Your task to perform on an android device: change keyboard looks Image 0: 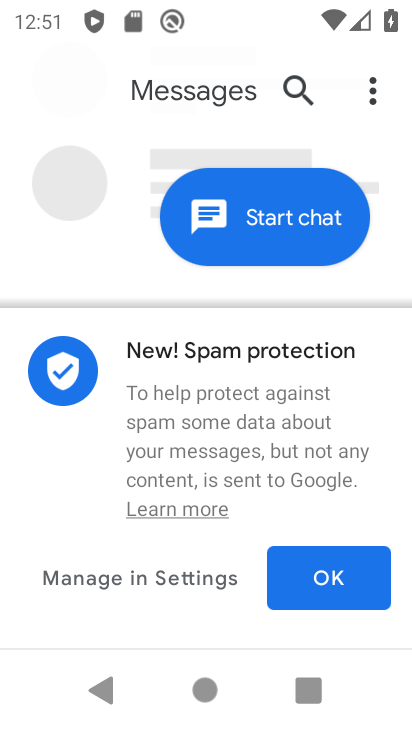
Step 0: press home button
Your task to perform on an android device: change keyboard looks Image 1: 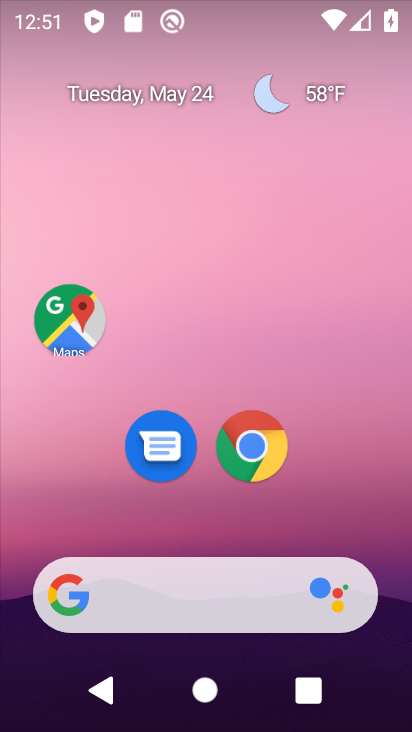
Step 1: drag from (230, 525) to (223, 133)
Your task to perform on an android device: change keyboard looks Image 2: 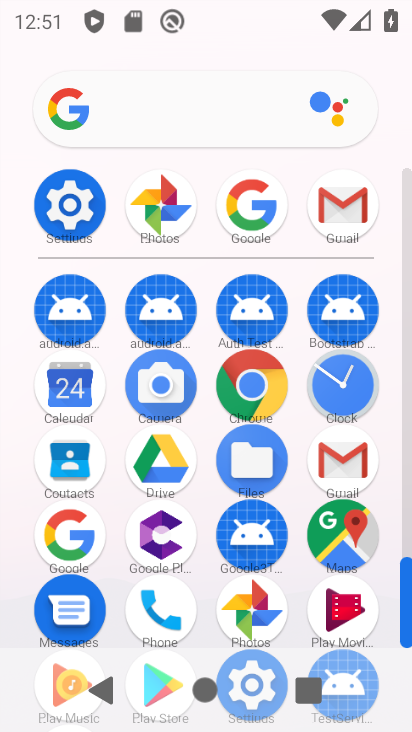
Step 2: click (66, 209)
Your task to perform on an android device: change keyboard looks Image 3: 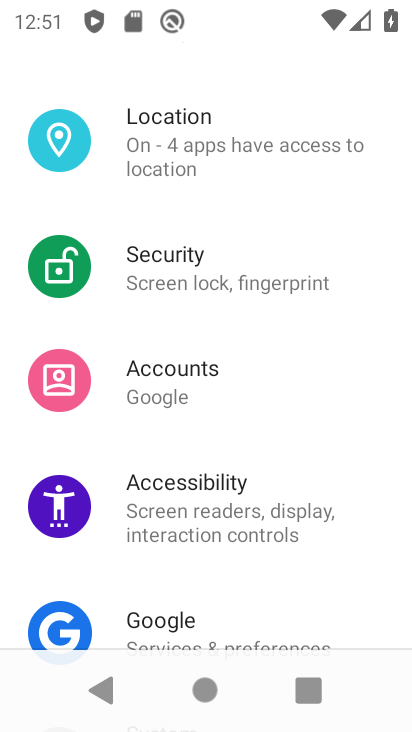
Step 3: drag from (208, 507) to (252, 150)
Your task to perform on an android device: change keyboard looks Image 4: 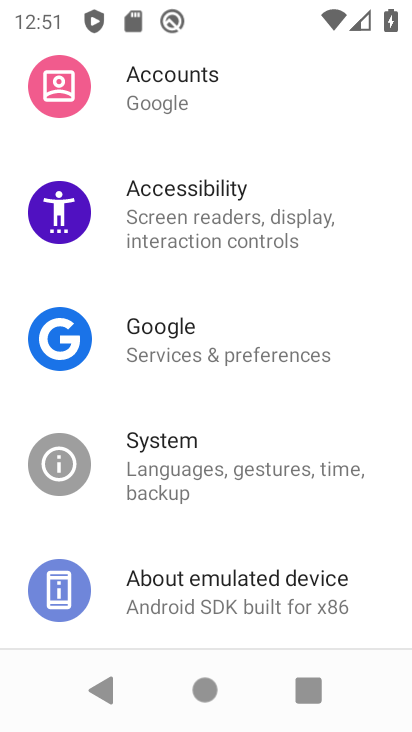
Step 4: drag from (192, 499) to (223, 171)
Your task to perform on an android device: change keyboard looks Image 5: 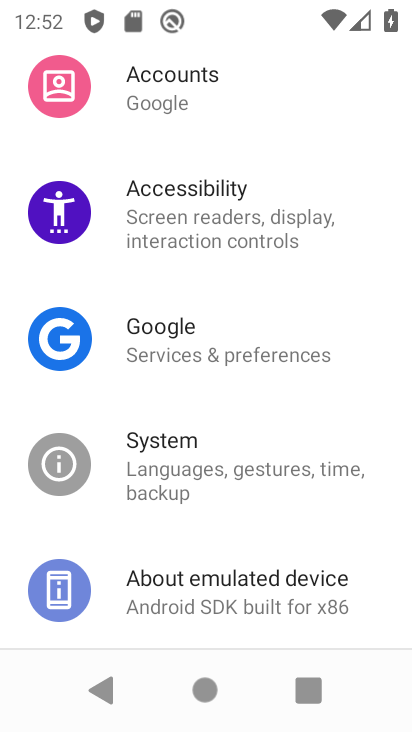
Step 5: click (238, 480)
Your task to perform on an android device: change keyboard looks Image 6: 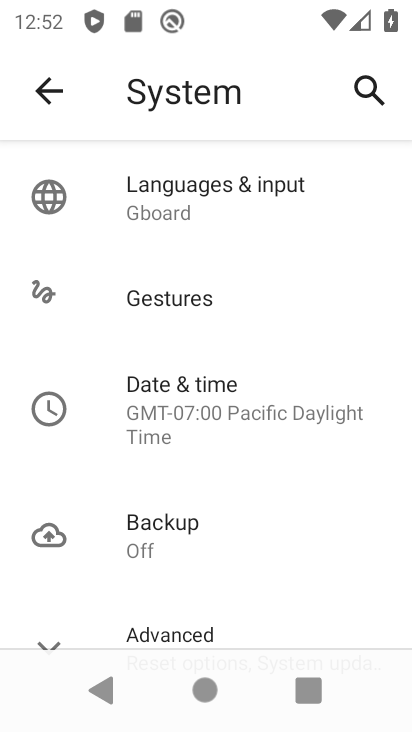
Step 6: click (211, 206)
Your task to perform on an android device: change keyboard looks Image 7: 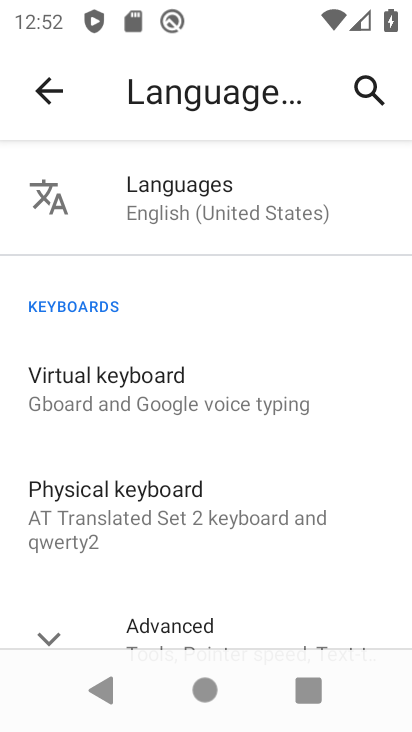
Step 7: click (181, 400)
Your task to perform on an android device: change keyboard looks Image 8: 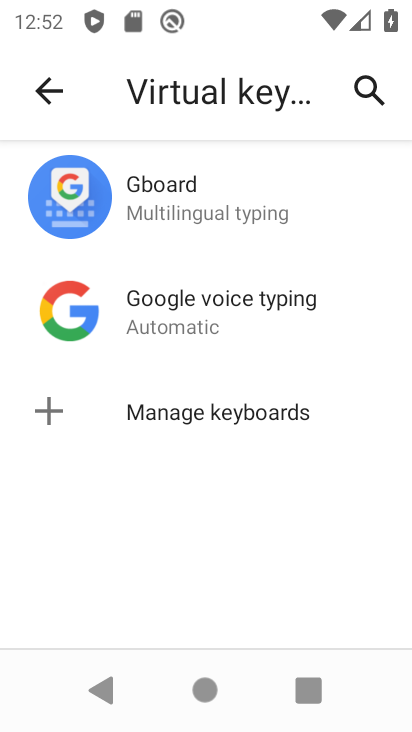
Step 8: click (211, 205)
Your task to perform on an android device: change keyboard looks Image 9: 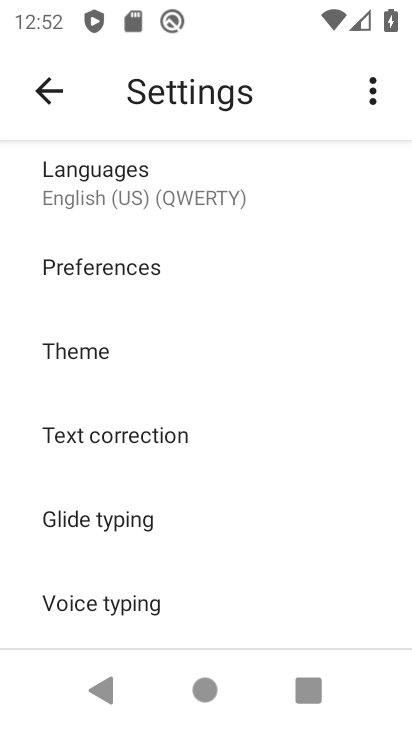
Step 9: click (121, 353)
Your task to perform on an android device: change keyboard looks Image 10: 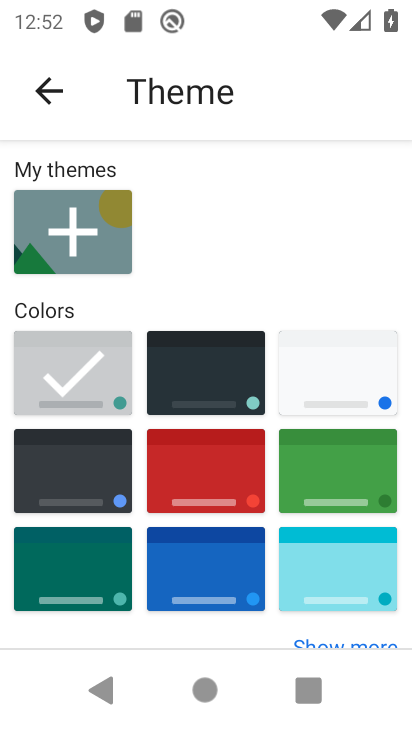
Step 10: click (343, 362)
Your task to perform on an android device: change keyboard looks Image 11: 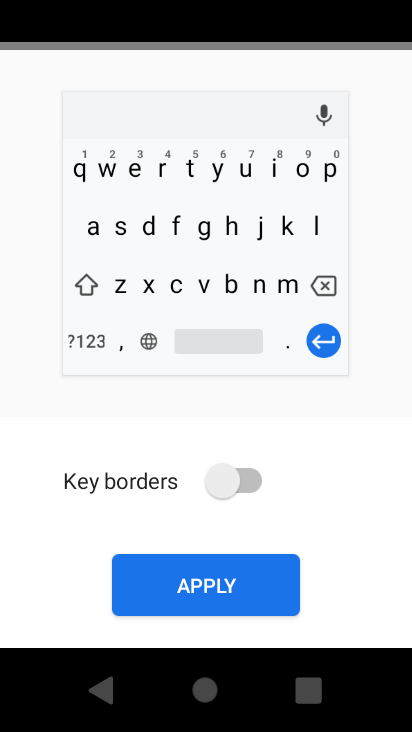
Step 11: click (228, 584)
Your task to perform on an android device: change keyboard looks Image 12: 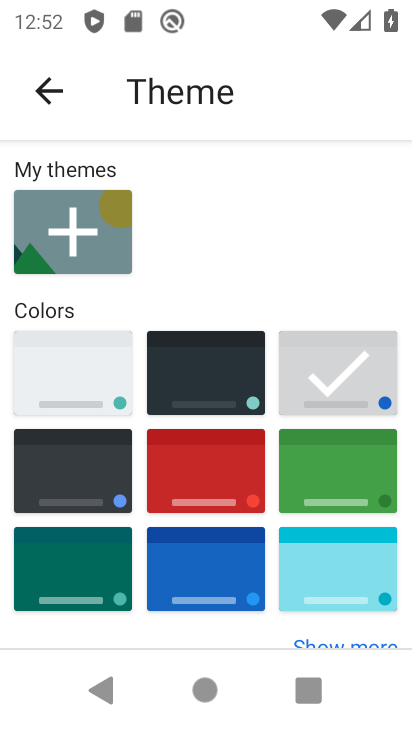
Step 12: task complete